Your task to perform on an android device: turn off picture-in-picture Image 0: 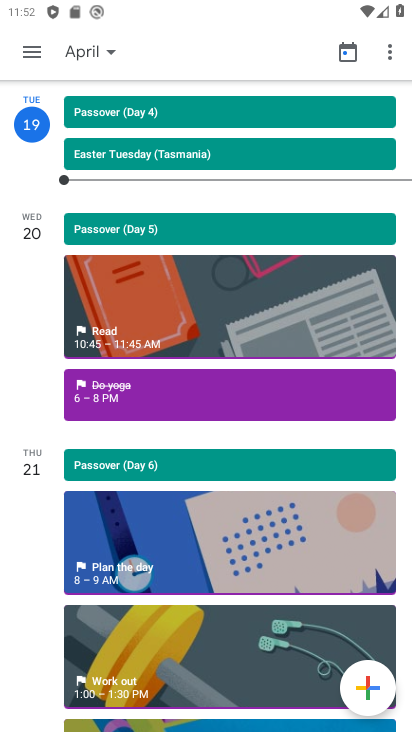
Step 0: press home button
Your task to perform on an android device: turn off picture-in-picture Image 1: 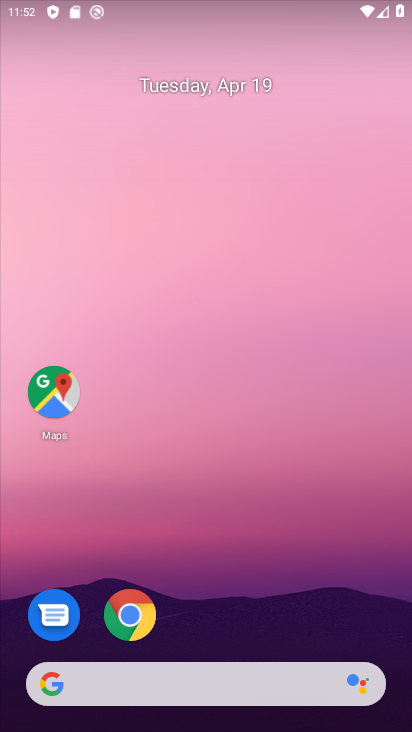
Step 1: click (134, 614)
Your task to perform on an android device: turn off picture-in-picture Image 2: 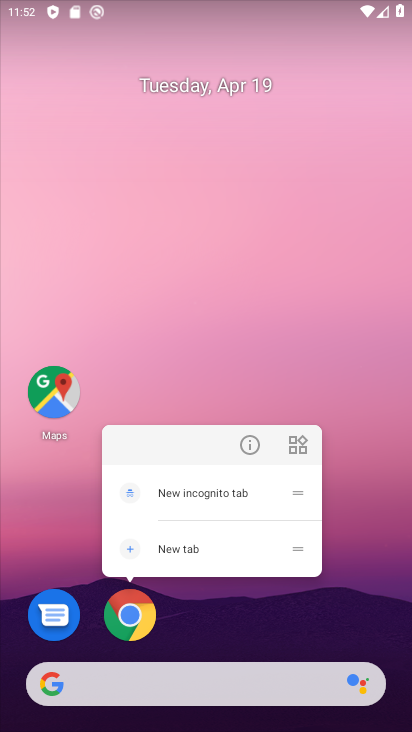
Step 2: click (248, 446)
Your task to perform on an android device: turn off picture-in-picture Image 3: 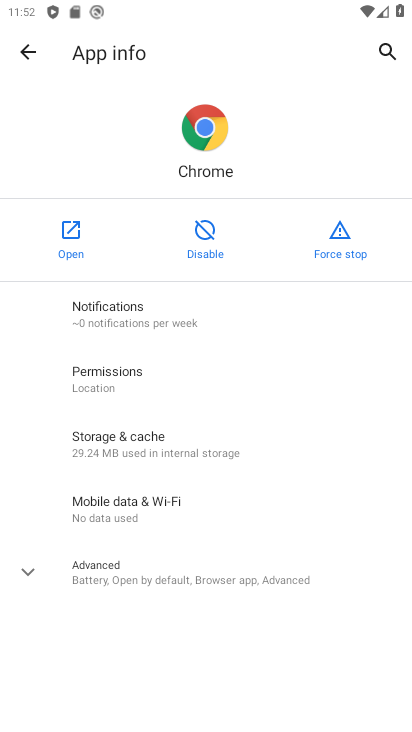
Step 3: click (92, 576)
Your task to perform on an android device: turn off picture-in-picture Image 4: 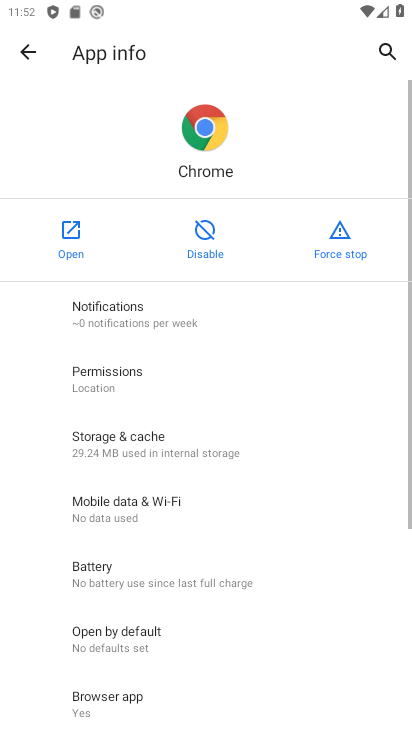
Step 4: drag from (216, 559) to (294, 130)
Your task to perform on an android device: turn off picture-in-picture Image 5: 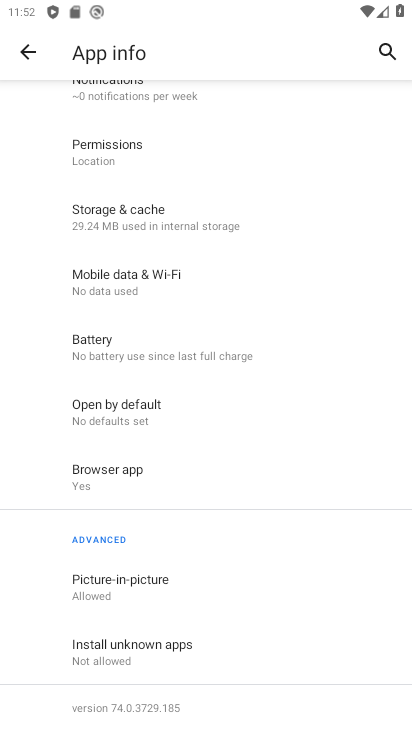
Step 5: drag from (192, 573) to (216, 410)
Your task to perform on an android device: turn off picture-in-picture Image 6: 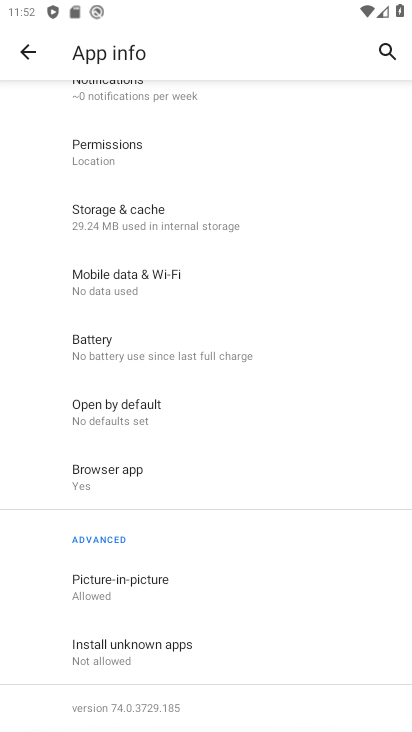
Step 6: click (139, 572)
Your task to perform on an android device: turn off picture-in-picture Image 7: 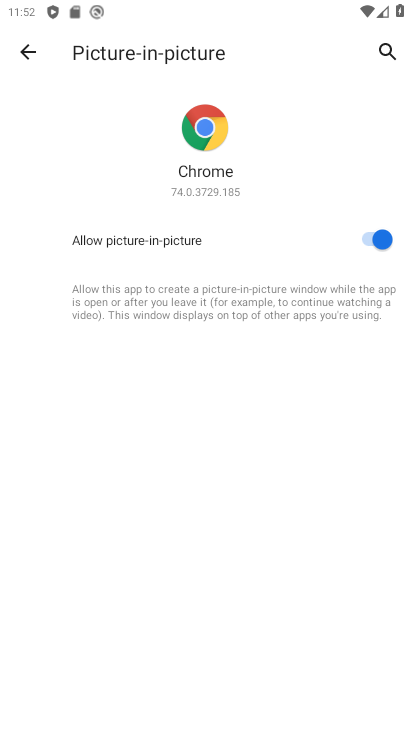
Step 7: click (374, 231)
Your task to perform on an android device: turn off picture-in-picture Image 8: 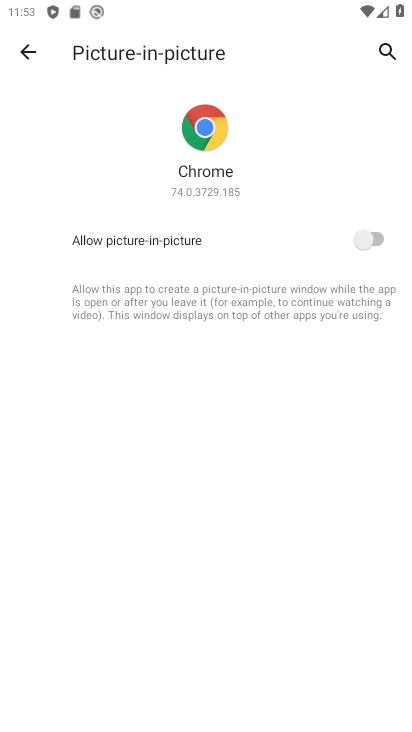
Step 8: task complete